Your task to perform on an android device: When is my next appointment? Image 0: 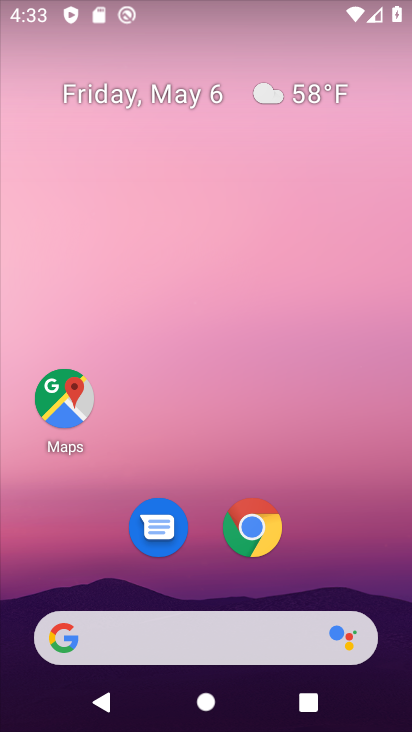
Step 0: drag from (162, 688) to (161, 102)
Your task to perform on an android device: When is my next appointment? Image 1: 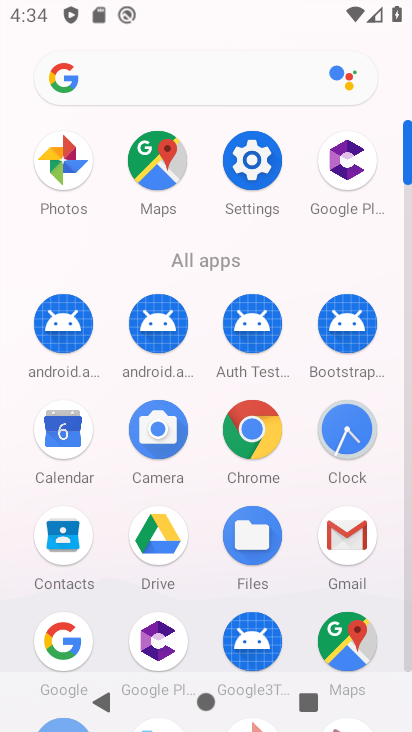
Step 1: click (57, 436)
Your task to perform on an android device: When is my next appointment? Image 2: 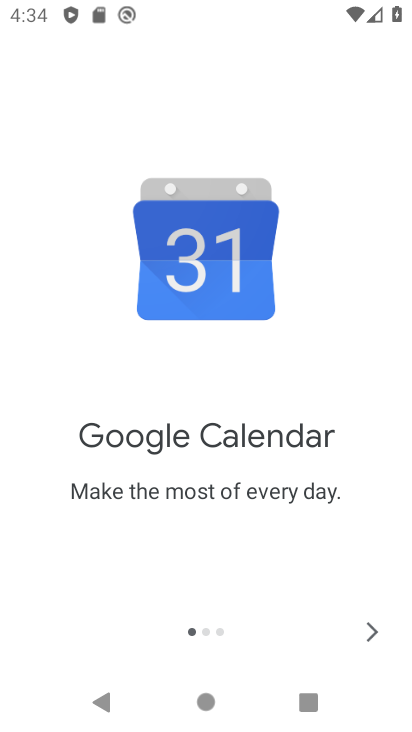
Step 2: click (374, 629)
Your task to perform on an android device: When is my next appointment? Image 3: 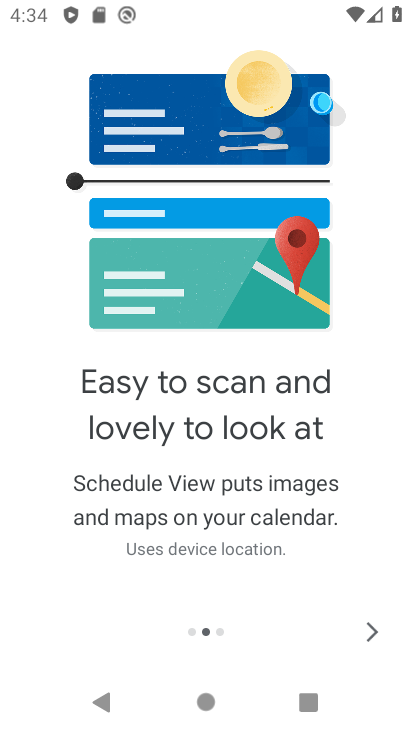
Step 3: click (374, 629)
Your task to perform on an android device: When is my next appointment? Image 4: 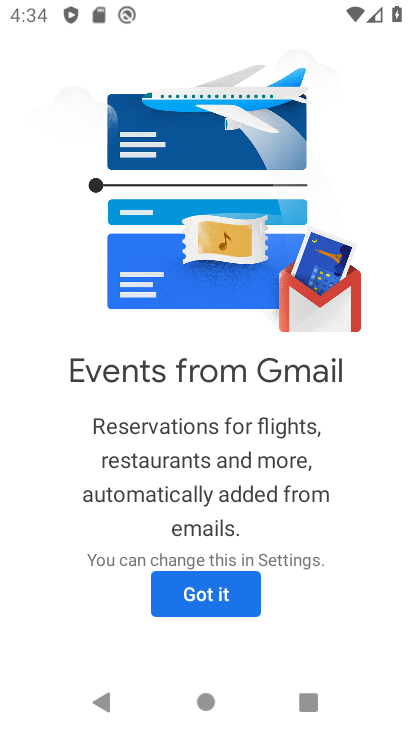
Step 4: click (197, 597)
Your task to perform on an android device: When is my next appointment? Image 5: 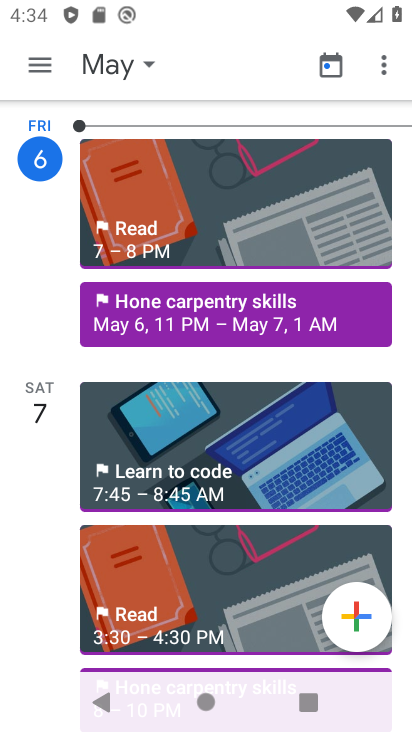
Step 5: click (110, 68)
Your task to perform on an android device: When is my next appointment? Image 6: 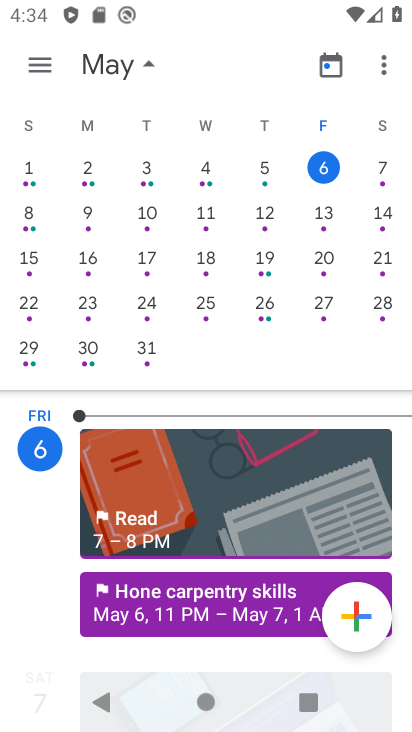
Step 6: click (377, 160)
Your task to perform on an android device: When is my next appointment? Image 7: 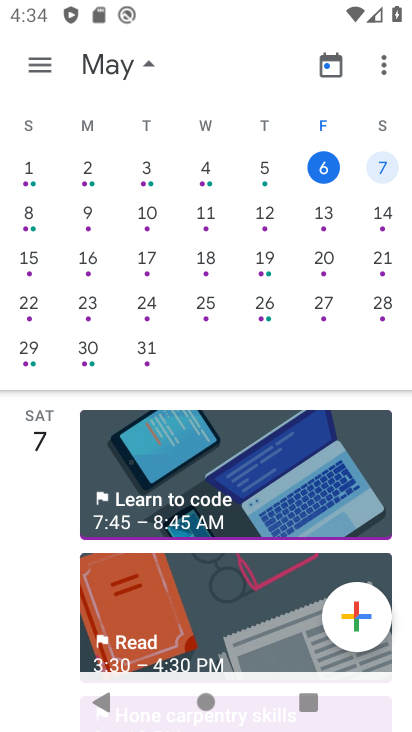
Step 7: click (374, 164)
Your task to perform on an android device: When is my next appointment? Image 8: 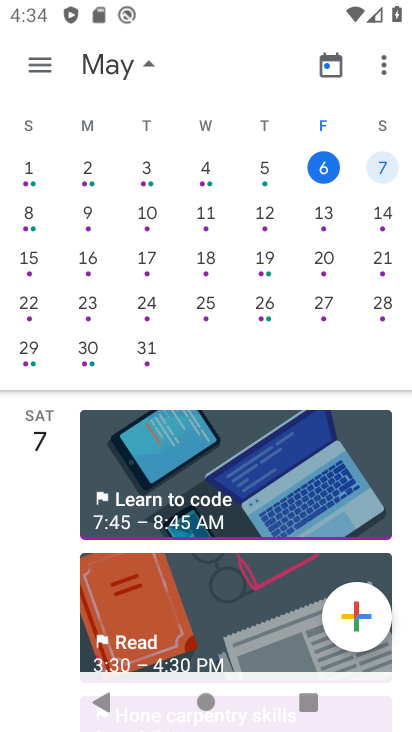
Step 8: task complete